Your task to perform on an android device: Go to Google Image 0: 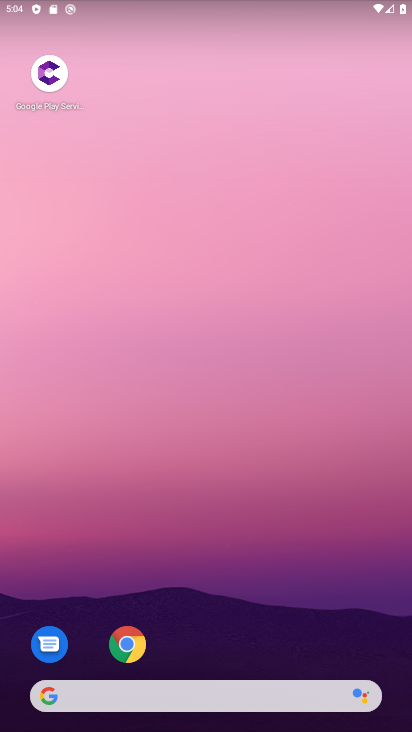
Step 0: drag from (203, 636) to (274, 73)
Your task to perform on an android device: Go to Google Image 1: 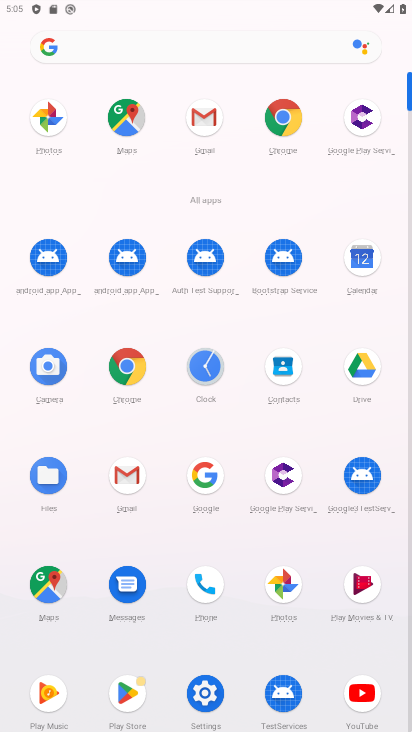
Step 1: click (208, 479)
Your task to perform on an android device: Go to Google Image 2: 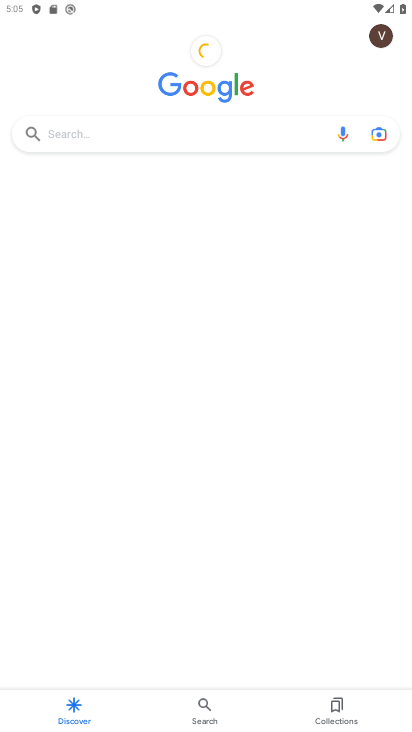
Step 2: task complete